Your task to perform on an android device: Open ESPN.com Image 0: 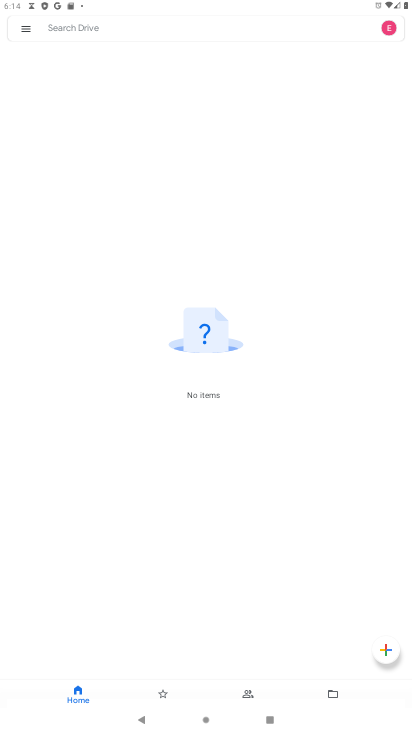
Step 0: press home button
Your task to perform on an android device: Open ESPN.com Image 1: 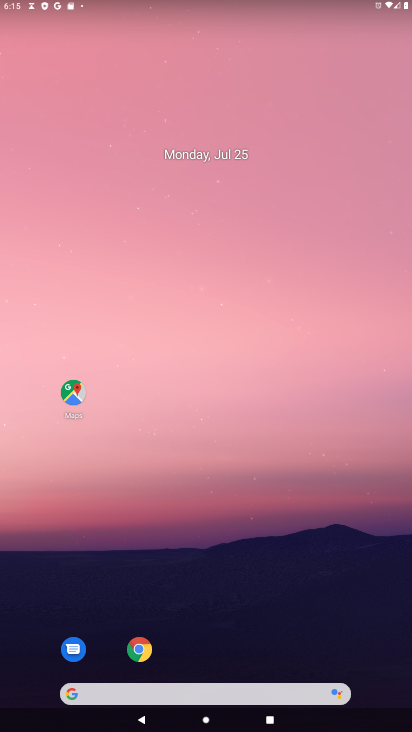
Step 1: drag from (181, 643) to (255, 63)
Your task to perform on an android device: Open ESPN.com Image 2: 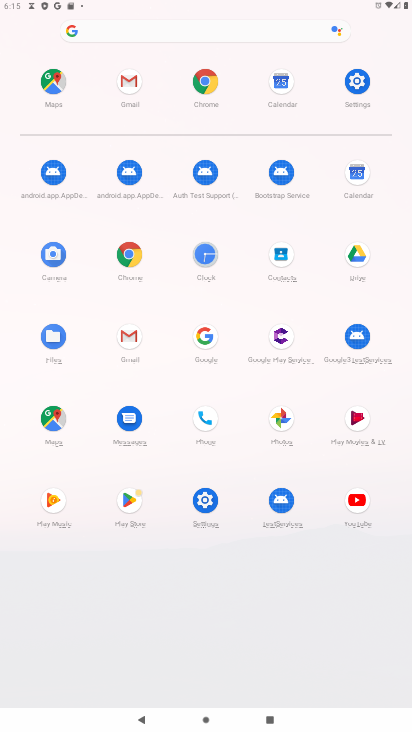
Step 2: click (126, 260)
Your task to perform on an android device: Open ESPN.com Image 3: 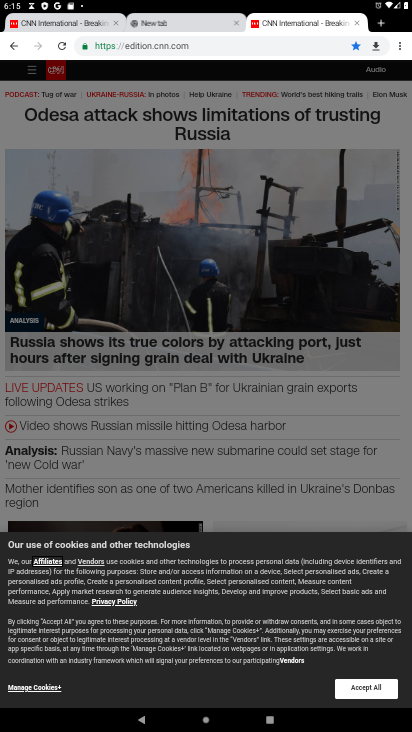
Step 3: click (329, 40)
Your task to perform on an android device: Open ESPN.com Image 4: 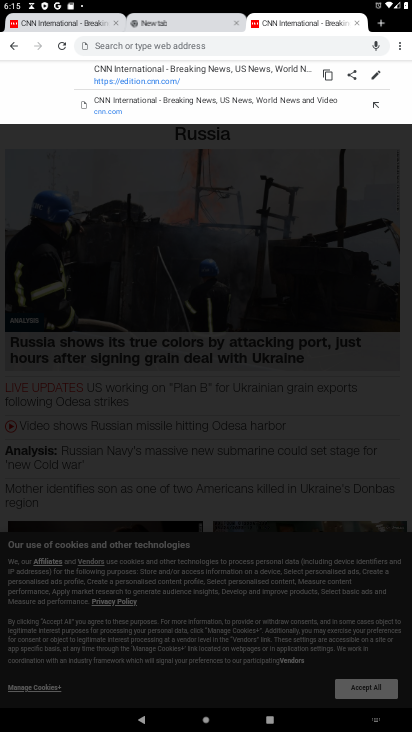
Step 4: type "espn.com"
Your task to perform on an android device: Open ESPN.com Image 5: 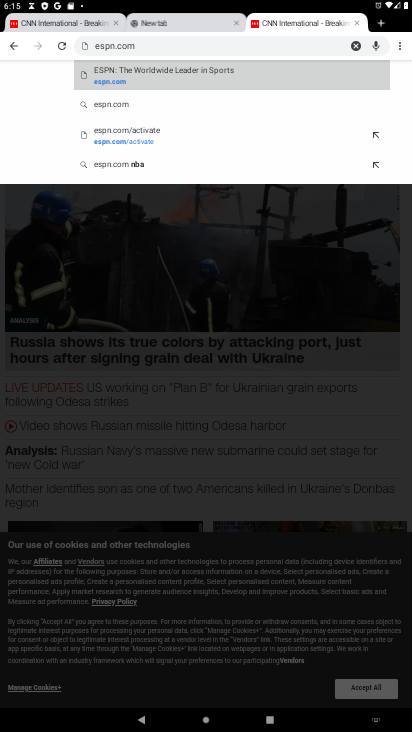
Step 5: click (183, 71)
Your task to perform on an android device: Open ESPN.com Image 6: 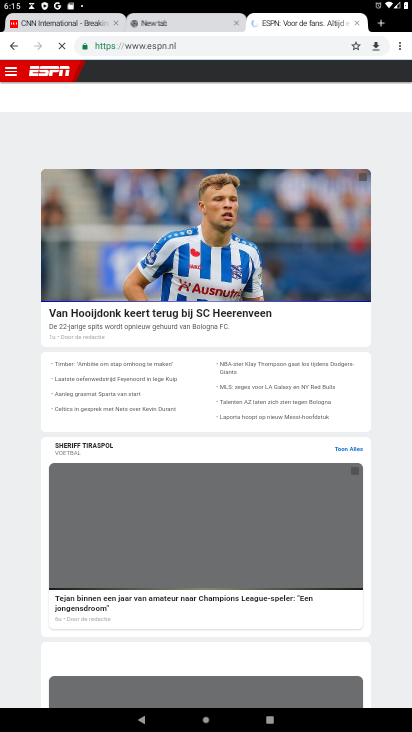
Step 6: task complete